Your task to perform on an android device: toggle airplane mode Image 0: 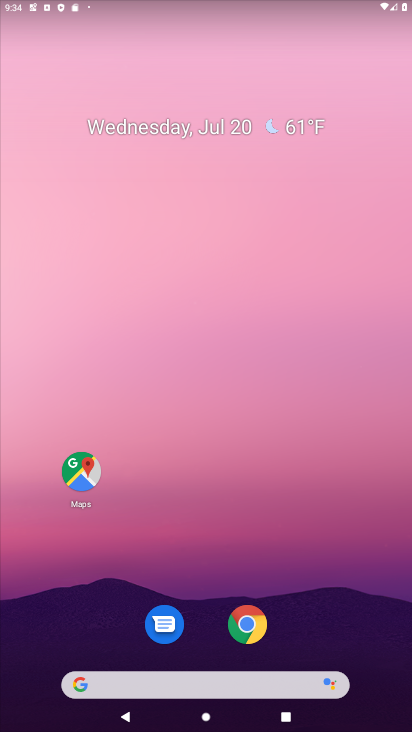
Step 0: drag from (235, 573) to (208, 90)
Your task to perform on an android device: toggle airplane mode Image 1: 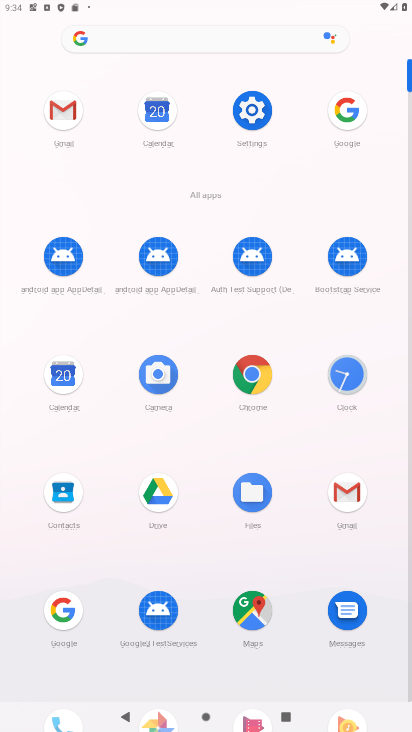
Step 1: click (241, 134)
Your task to perform on an android device: toggle airplane mode Image 2: 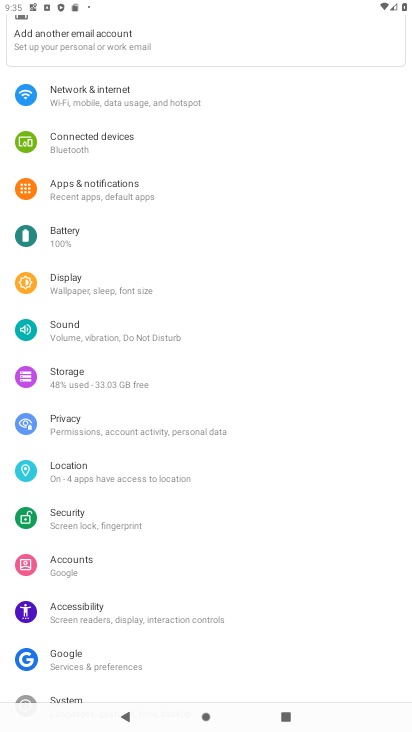
Step 2: click (106, 108)
Your task to perform on an android device: toggle airplane mode Image 3: 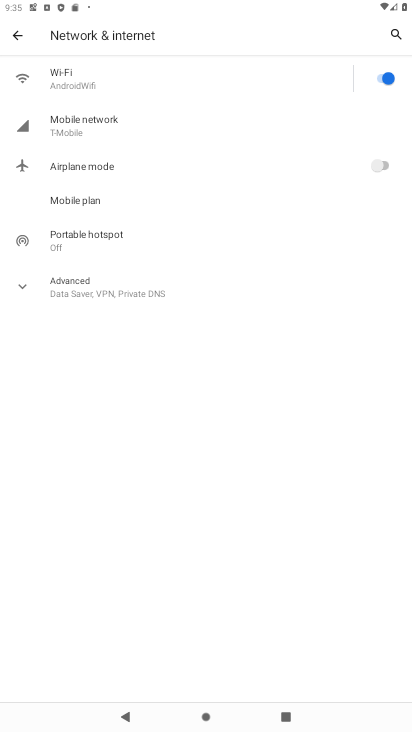
Step 3: click (390, 167)
Your task to perform on an android device: toggle airplane mode Image 4: 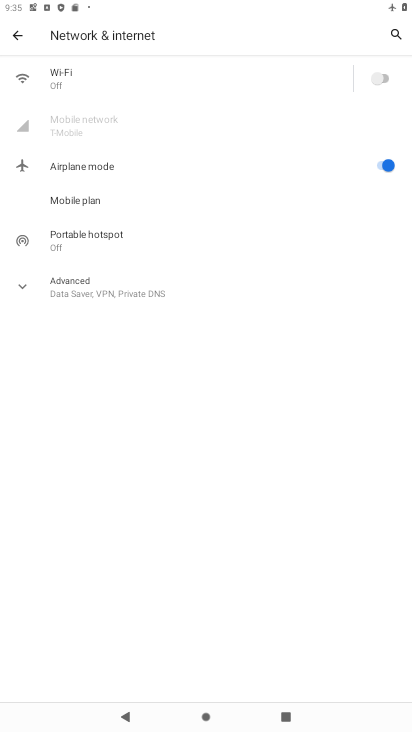
Step 4: task complete